Your task to perform on an android device: Open display settings Image 0: 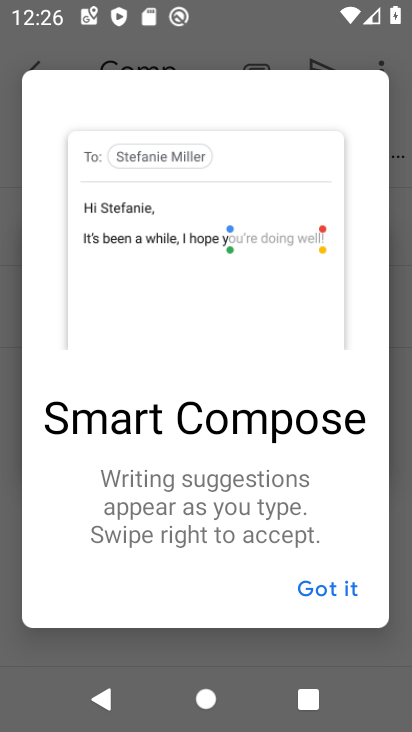
Step 0: press home button
Your task to perform on an android device: Open display settings Image 1: 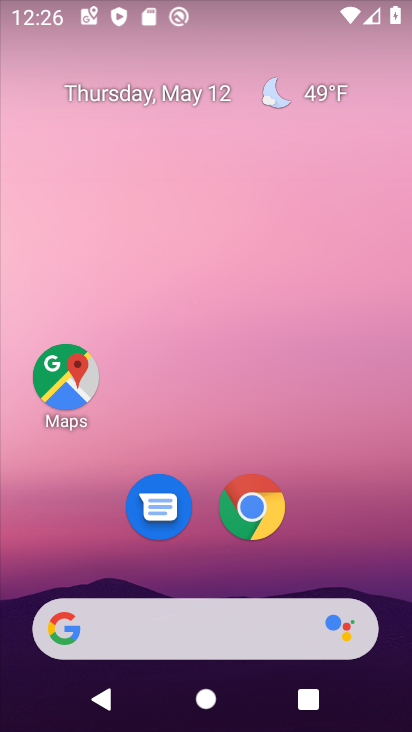
Step 1: drag from (290, 558) to (259, 38)
Your task to perform on an android device: Open display settings Image 2: 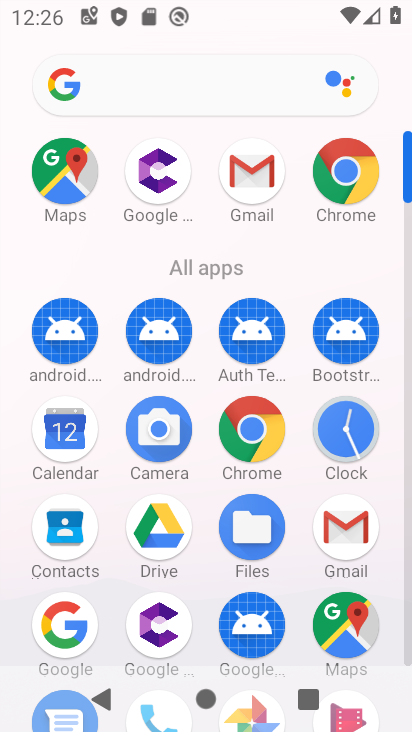
Step 2: drag from (195, 572) to (197, 239)
Your task to perform on an android device: Open display settings Image 3: 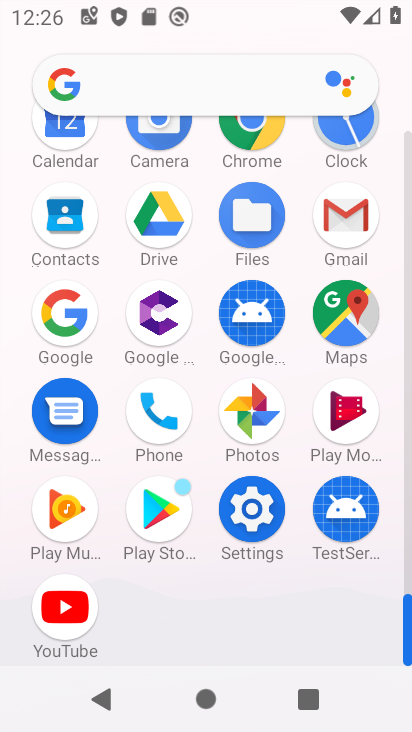
Step 3: click (249, 529)
Your task to perform on an android device: Open display settings Image 4: 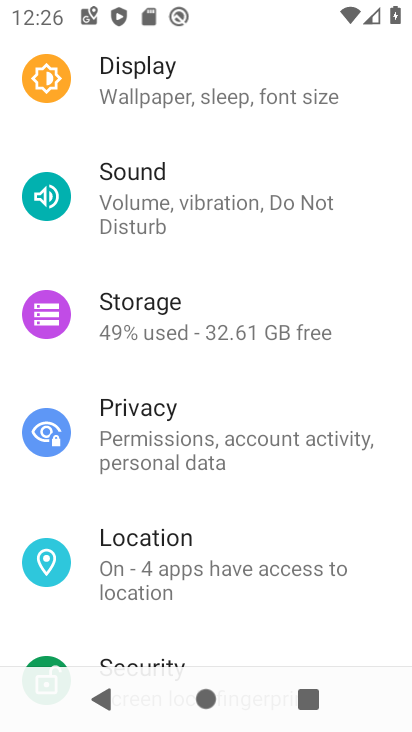
Step 4: click (179, 95)
Your task to perform on an android device: Open display settings Image 5: 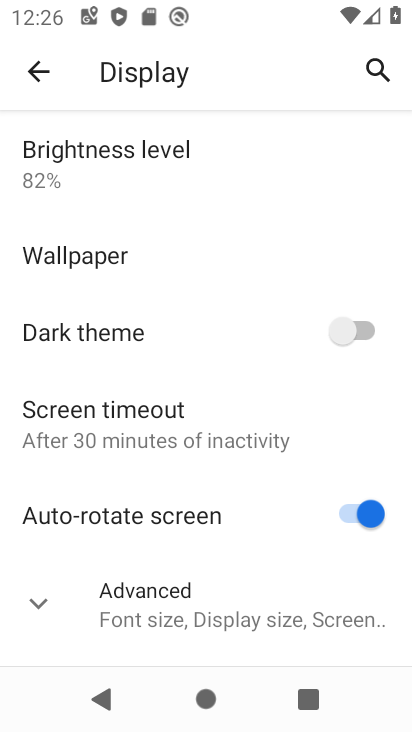
Step 5: task complete